Your task to perform on an android device: install app "Booking.com: Hotels and more" Image 0: 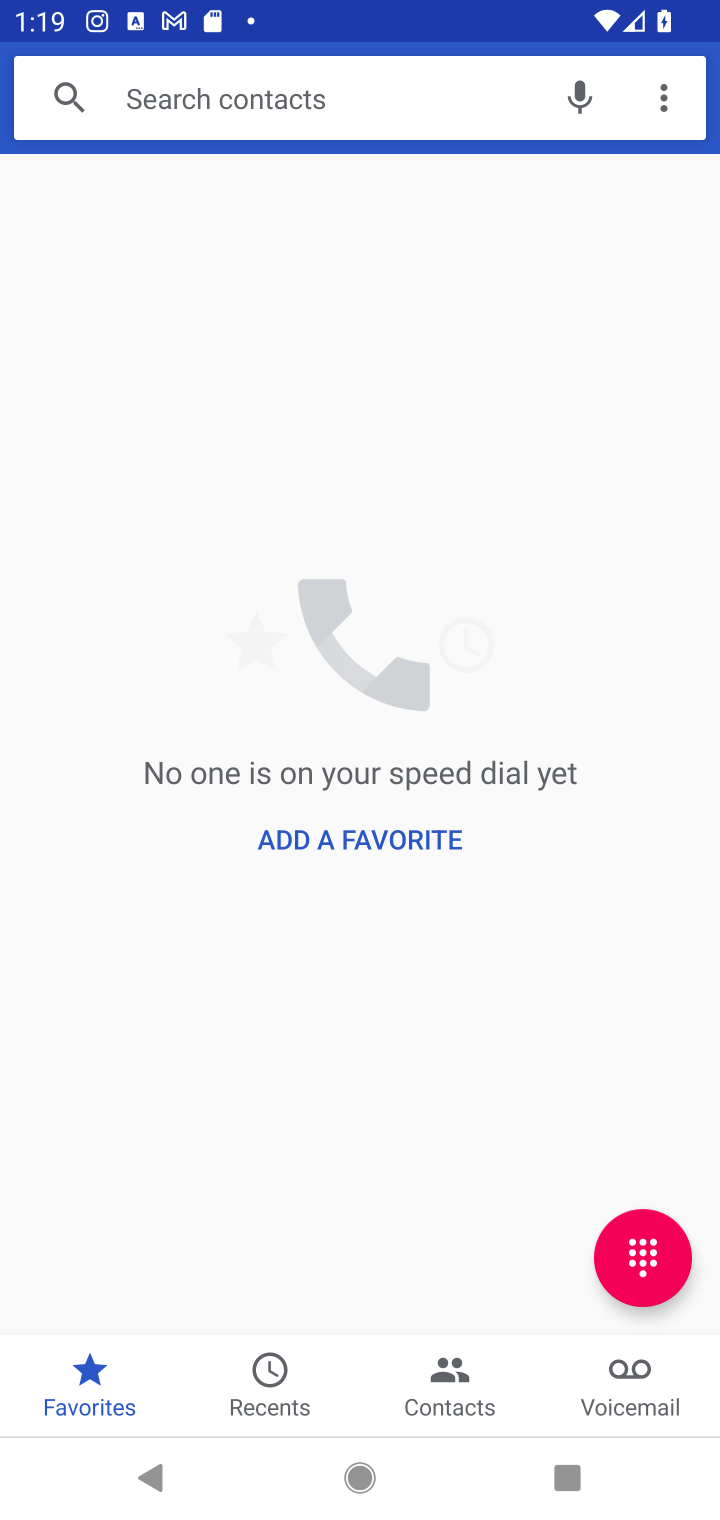
Step 0: press home button
Your task to perform on an android device: install app "Booking.com: Hotels and more" Image 1: 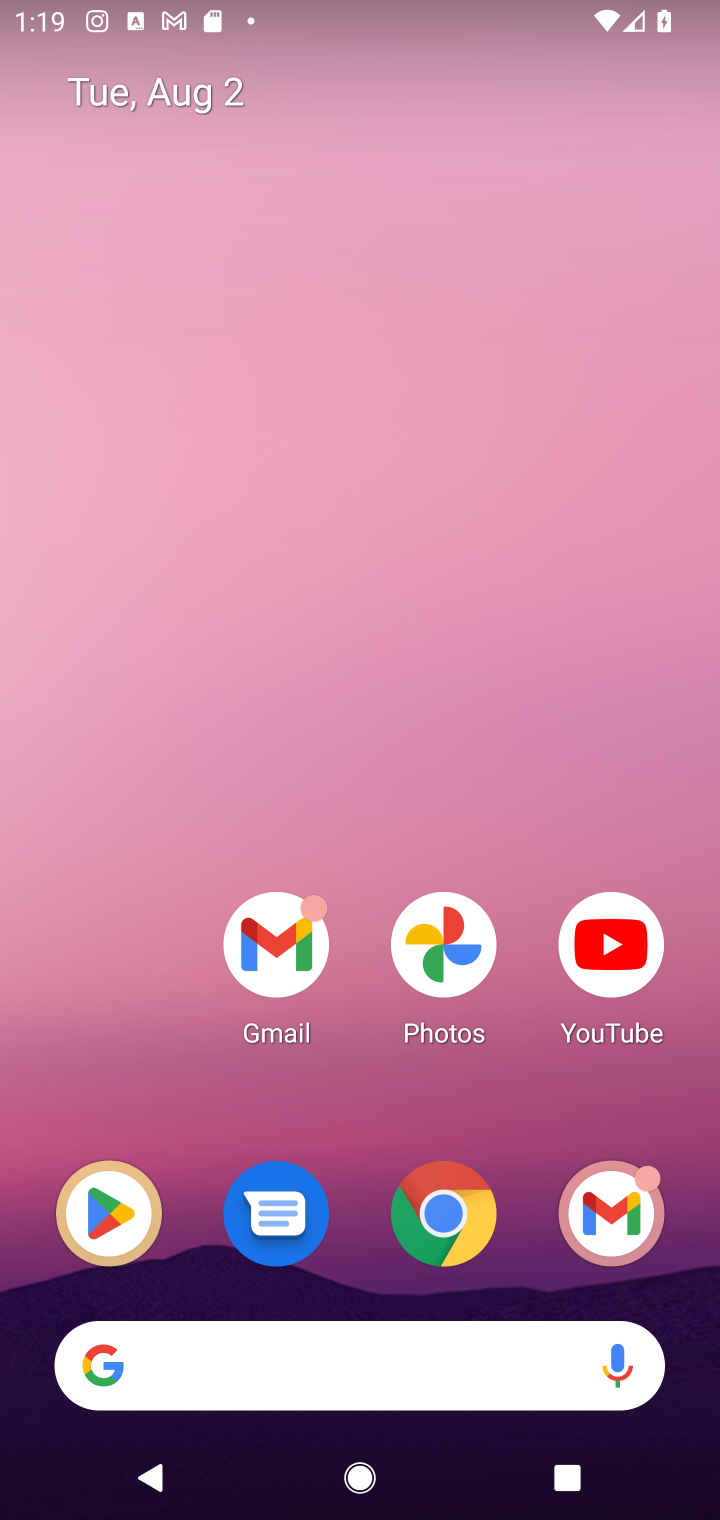
Step 1: click (152, 1189)
Your task to perform on an android device: install app "Booking.com: Hotels and more" Image 2: 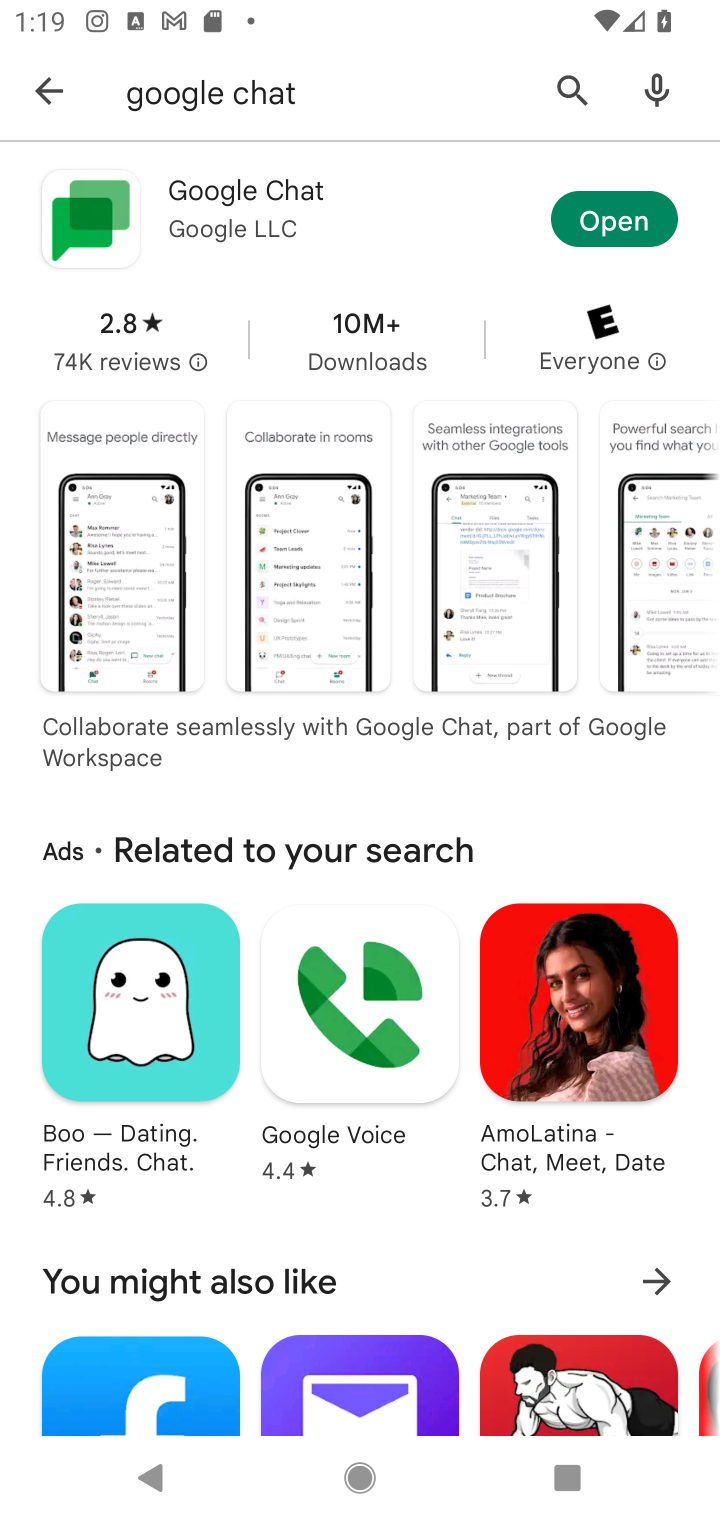
Step 2: click (64, 75)
Your task to perform on an android device: install app "Booking.com: Hotels and more" Image 3: 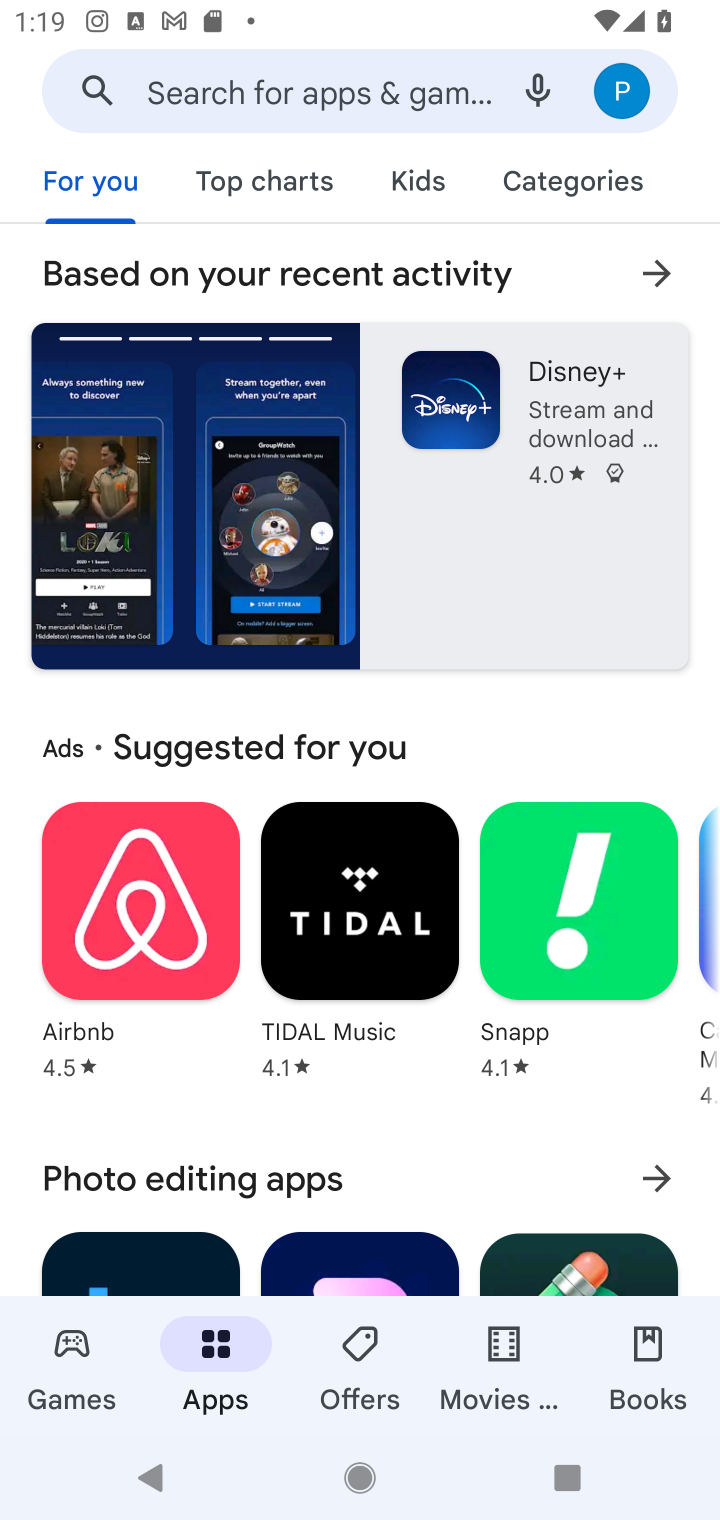
Step 3: click (264, 76)
Your task to perform on an android device: install app "Booking.com: Hotels and more" Image 4: 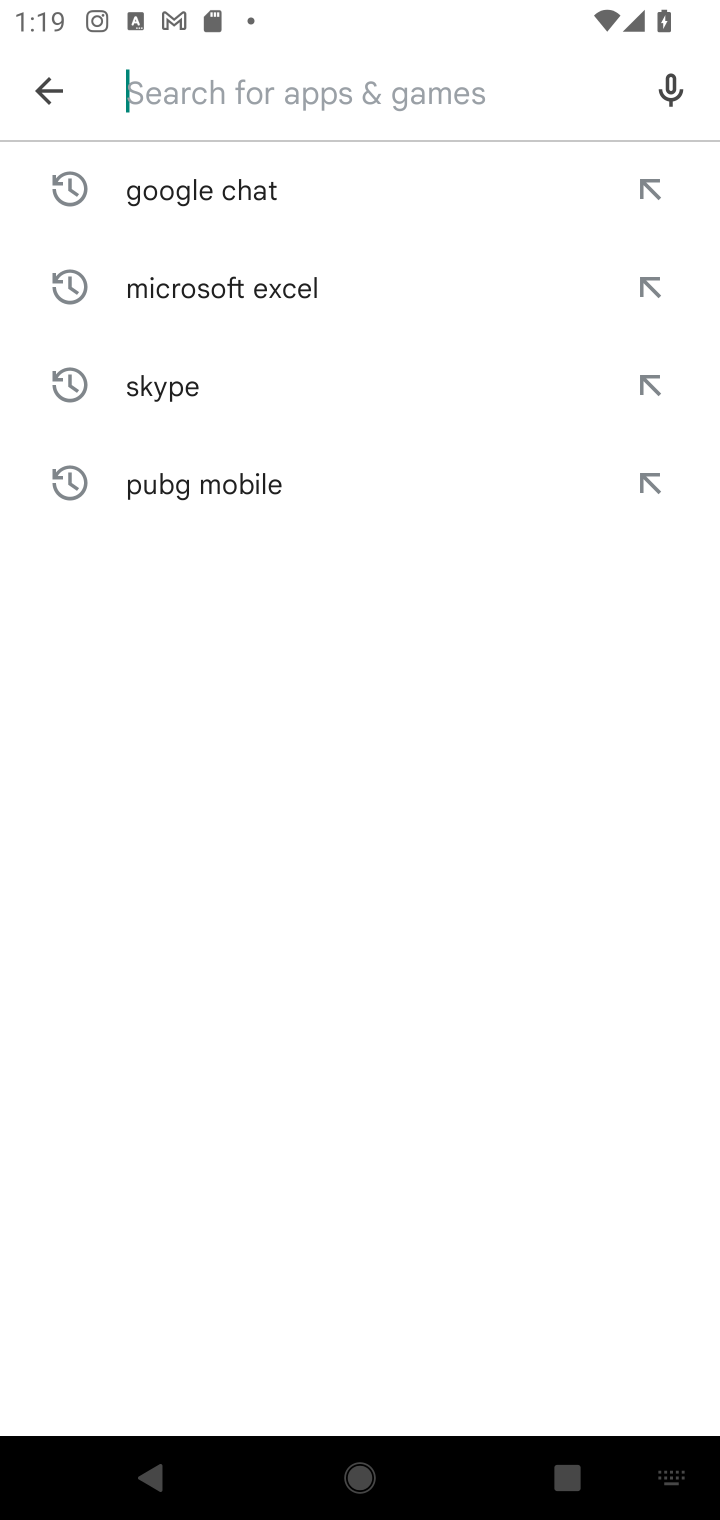
Step 4: type "Booking.com: Hotels and more"
Your task to perform on an android device: install app "Booking.com: Hotels and more" Image 5: 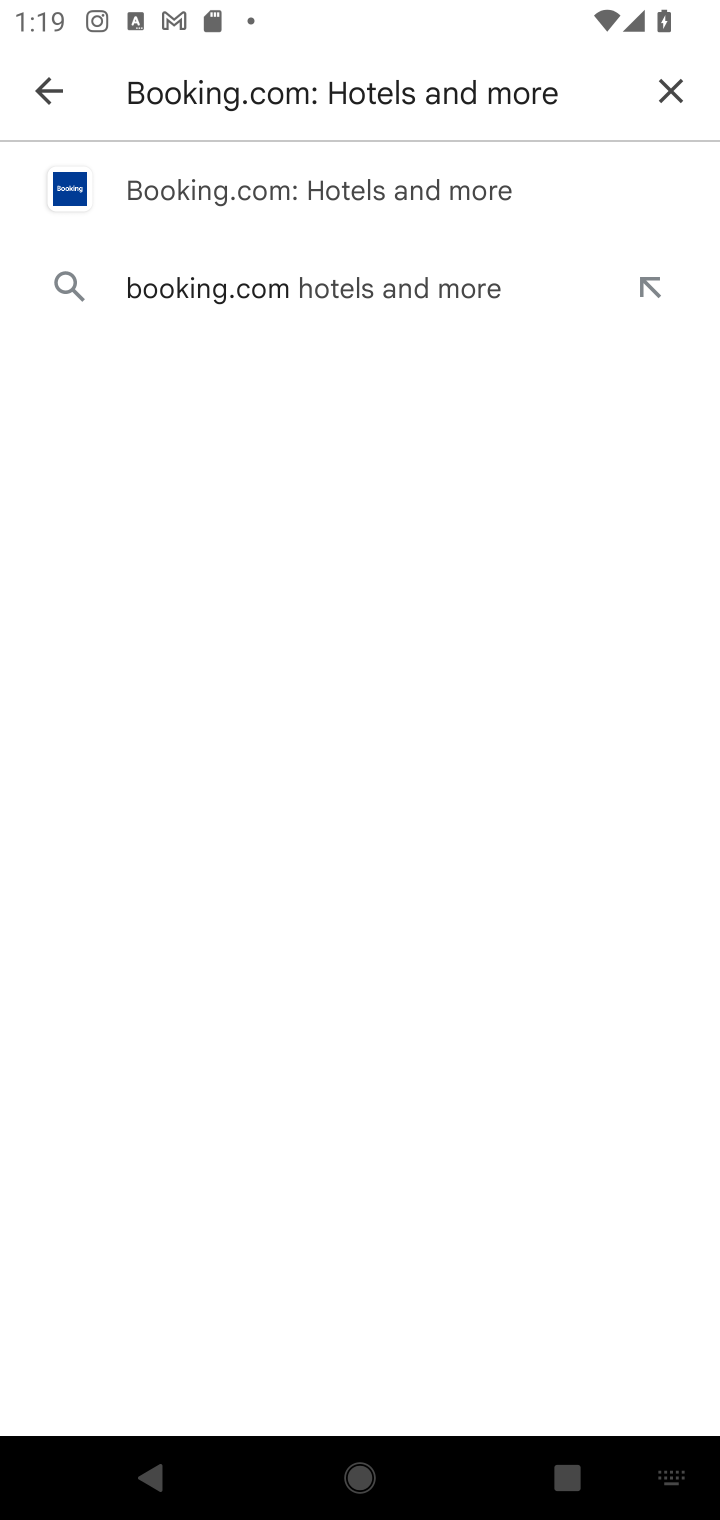
Step 5: click (259, 186)
Your task to perform on an android device: install app "Booking.com: Hotels and more" Image 6: 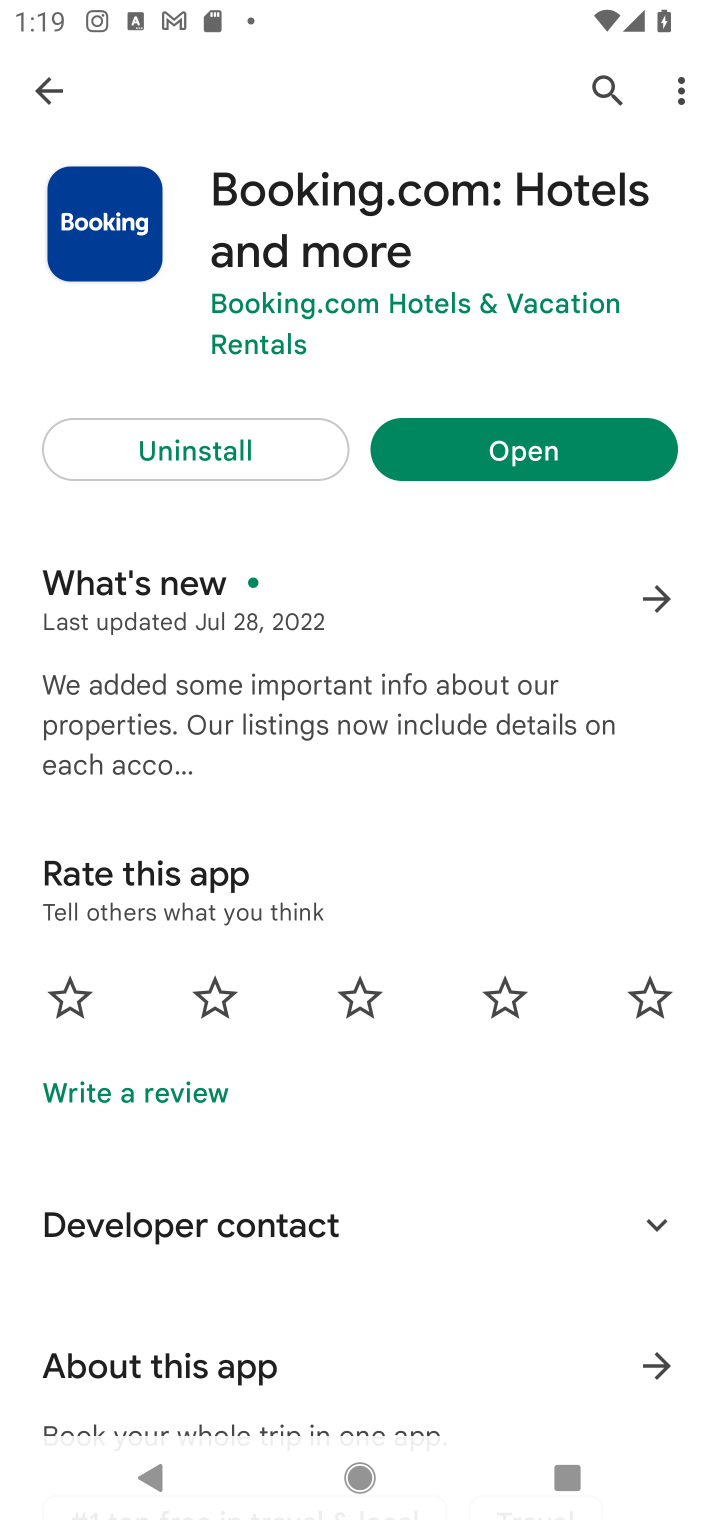
Step 6: click (489, 447)
Your task to perform on an android device: install app "Booking.com: Hotels and more" Image 7: 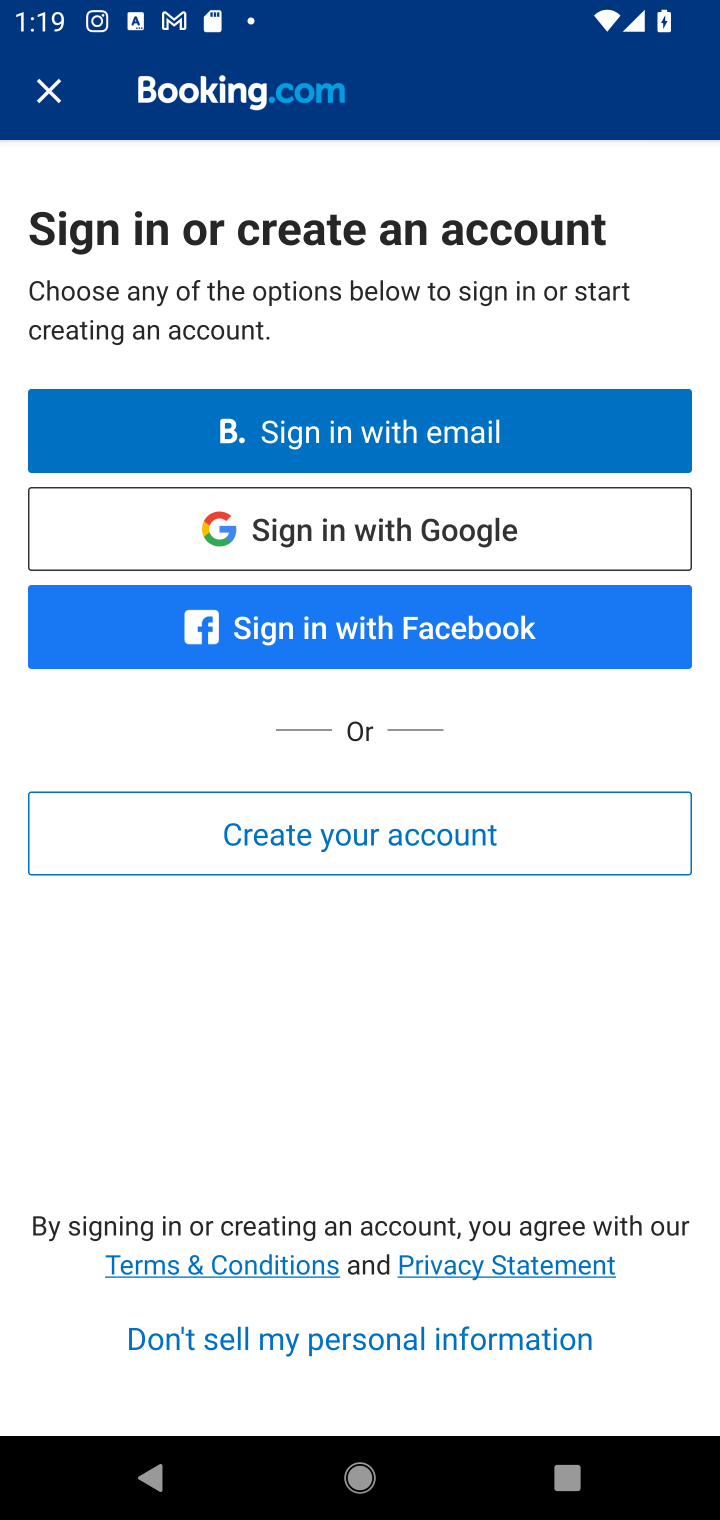
Step 7: task complete